Your task to perform on an android device: Open battery settings Image 0: 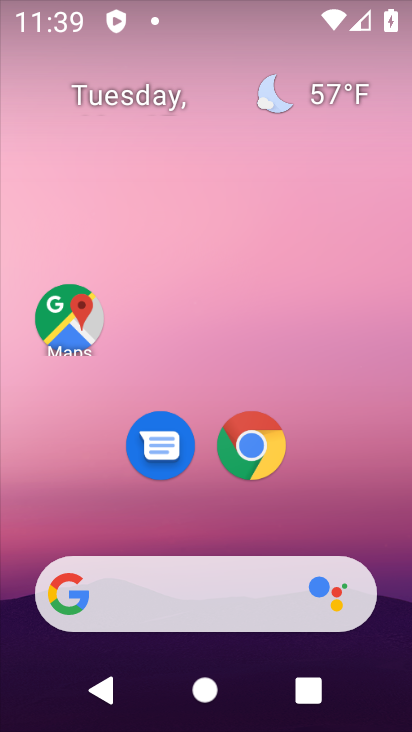
Step 0: drag from (390, 525) to (383, 193)
Your task to perform on an android device: Open battery settings Image 1: 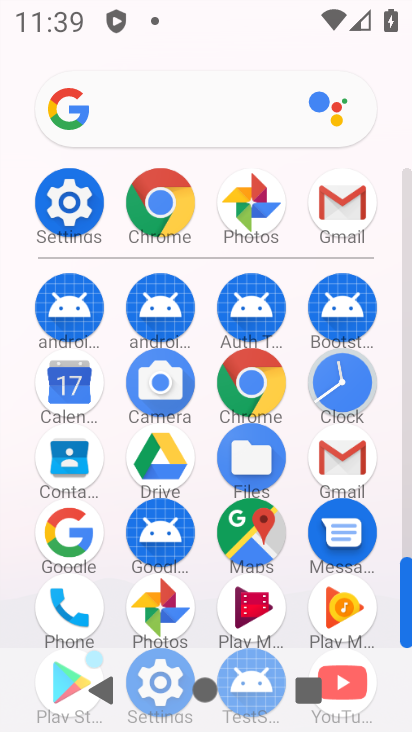
Step 1: click (78, 216)
Your task to perform on an android device: Open battery settings Image 2: 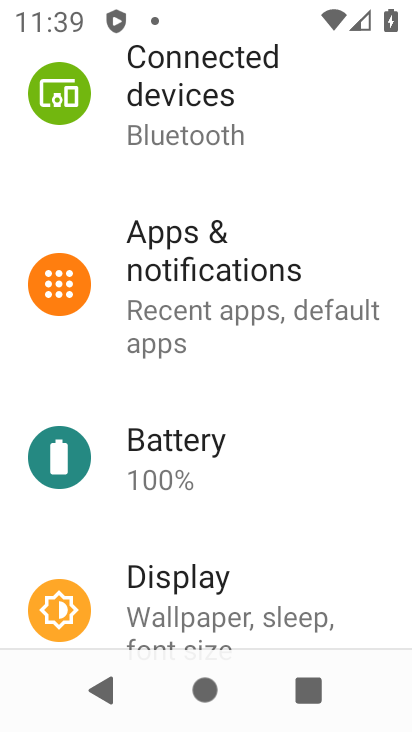
Step 2: drag from (297, 520) to (311, 346)
Your task to perform on an android device: Open battery settings Image 3: 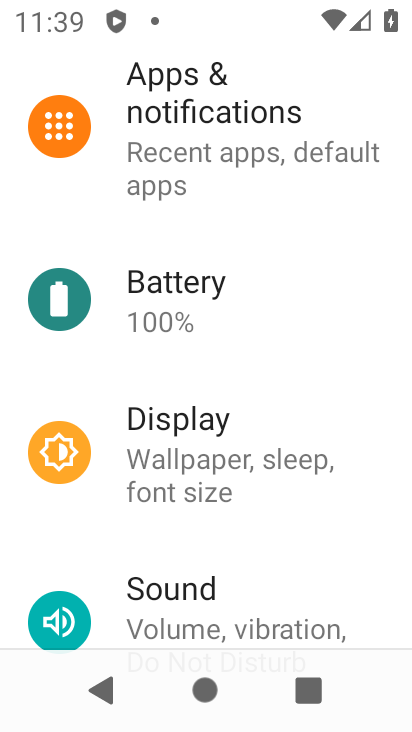
Step 3: drag from (305, 557) to (322, 389)
Your task to perform on an android device: Open battery settings Image 4: 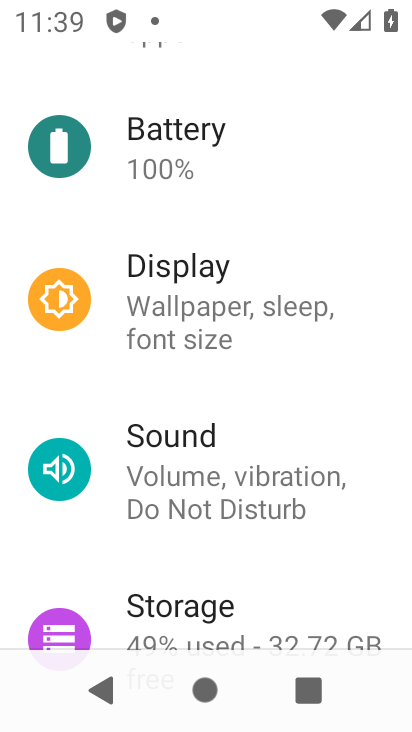
Step 4: drag from (306, 584) to (322, 443)
Your task to perform on an android device: Open battery settings Image 5: 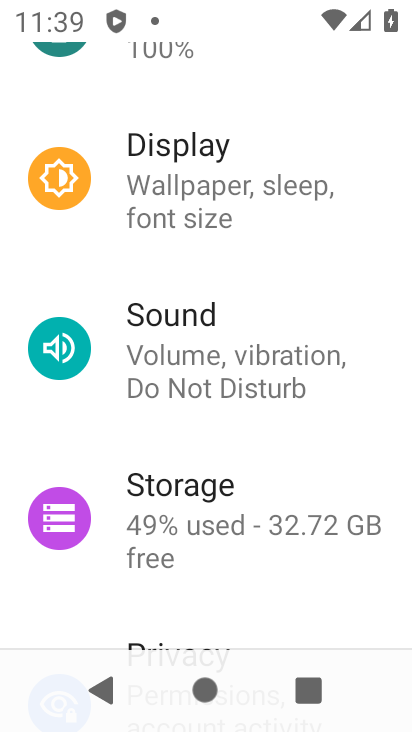
Step 5: drag from (315, 603) to (329, 477)
Your task to perform on an android device: Open battery settings Image 6: 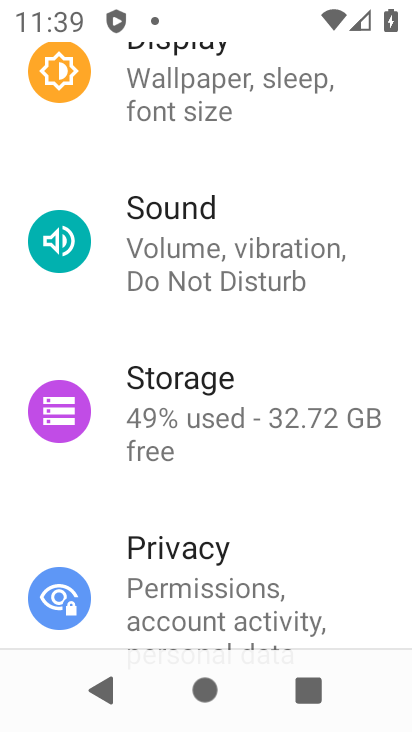
Step 6: drag from (324, 592) to (321, 514)
Your task to perform on an android device: Open battery settings Image 7: 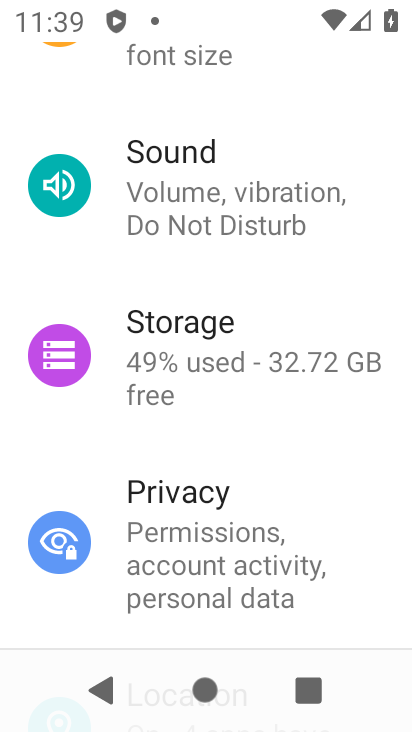
Step 7: drag from (331, 595) to (339, 514)
Your task to perform on an android device: Open battery settings Image 8: 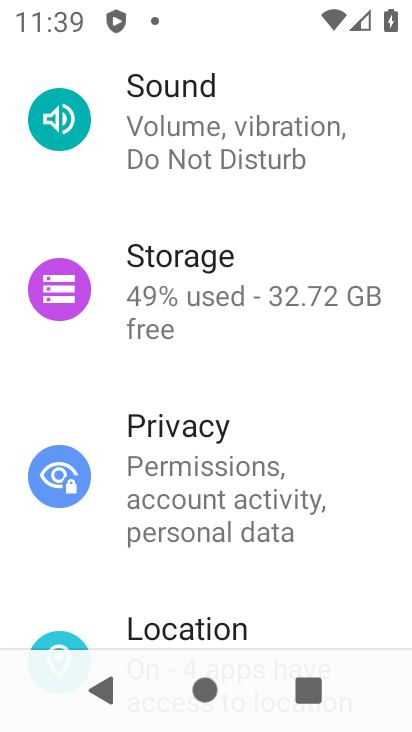
Step 8: drag from (332, 589) to (334, 437)
Your task to perform on an android device: Open battery settings Image 9: 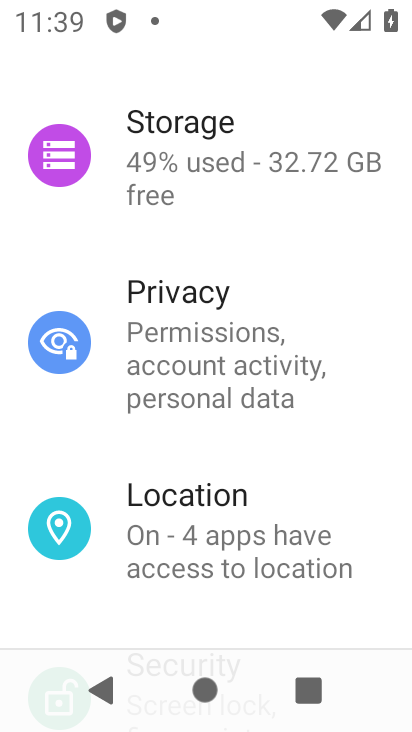
Step 9: drag from (345, 323) to (337, 473)
Your task to perform on an android device: Open battery settings Image 10: 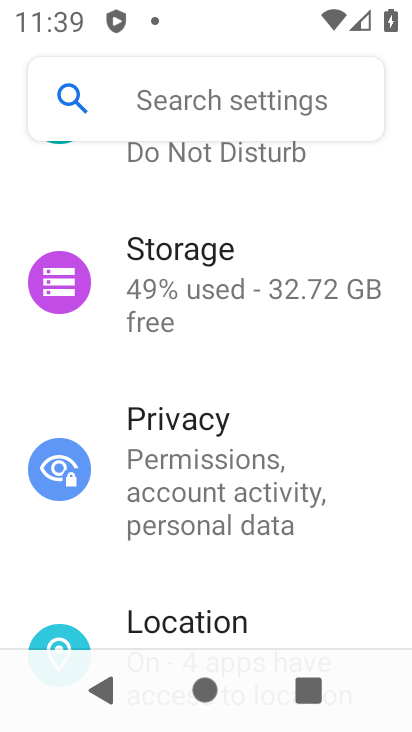
Step 10: drag from (334, 345) to (330, 483)
Your task to perform on an android device: Open battery settings Image 11: 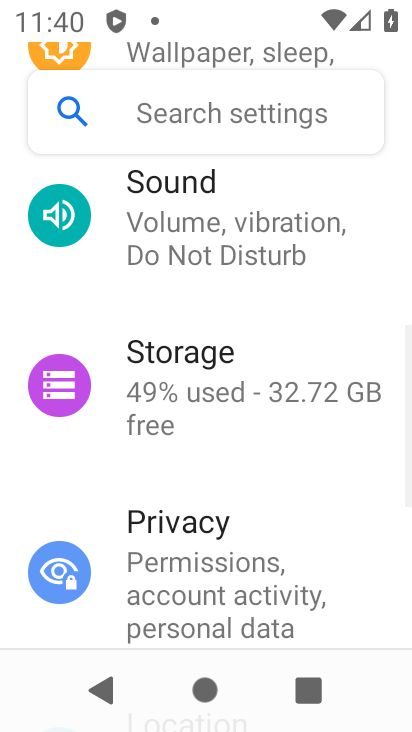
Step 11: drag from (307, 306) to (323, 456)
Your task to perform on an android device: Open battery settings Image 12: 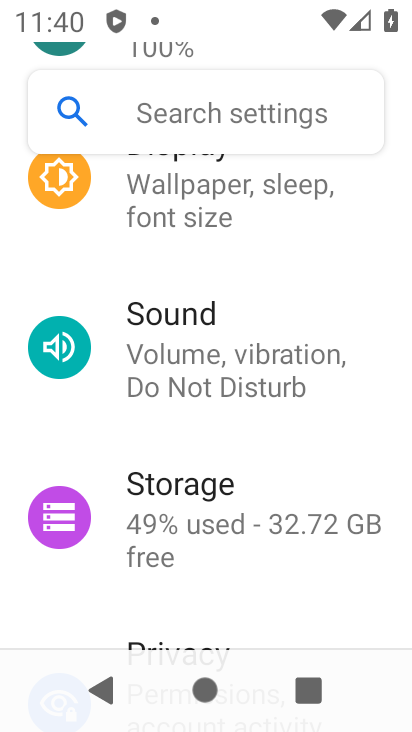
Step 12: drag from (343, 267) to (362, 408)
Your task to perform on an android device: Open battery settings Image 13: 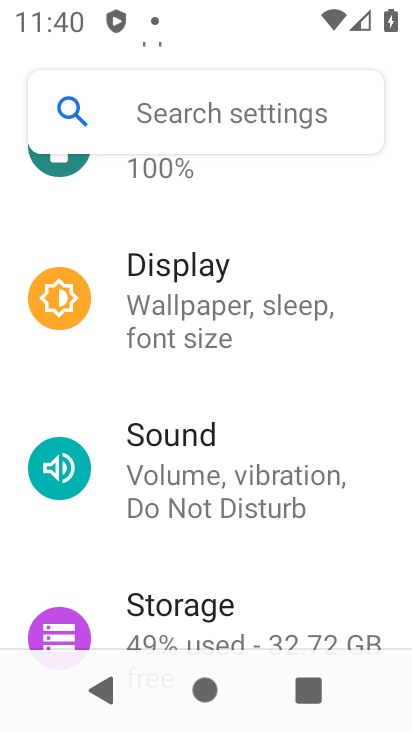
Step 13: drag from (361, 262) to (364, 381)
Your task to perform on an android device: Open battery settings Image 14: 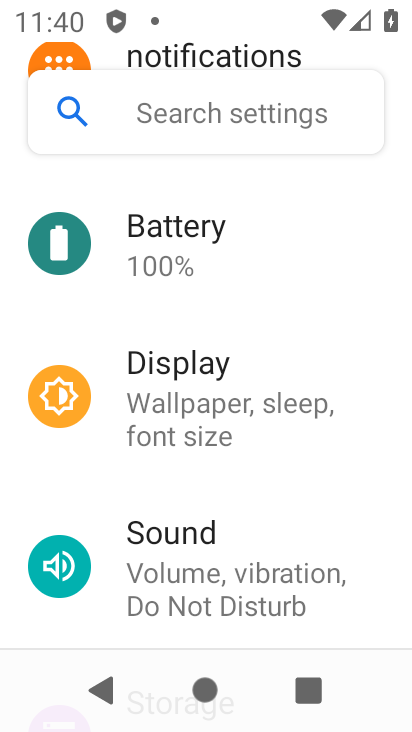
Step 14: drag from (345, 266) to (352, 364)
Your task to perform on an android device: Open battery settings Image 15: 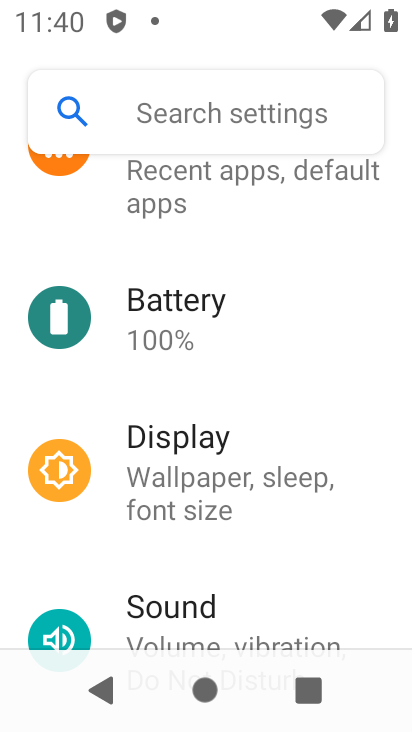
Step 15: click (141, 333)
Your task to perform on an android device: Open battery settings Image 16: 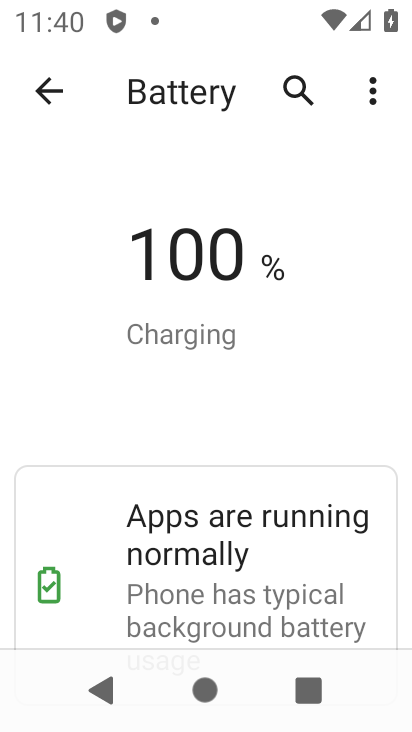
Step 16: task complete